Your task to perform on an android device: Clear the cart on amazon. Search for duracell triple a on amazon, select the first entry, and add it to the cart. Image 0: 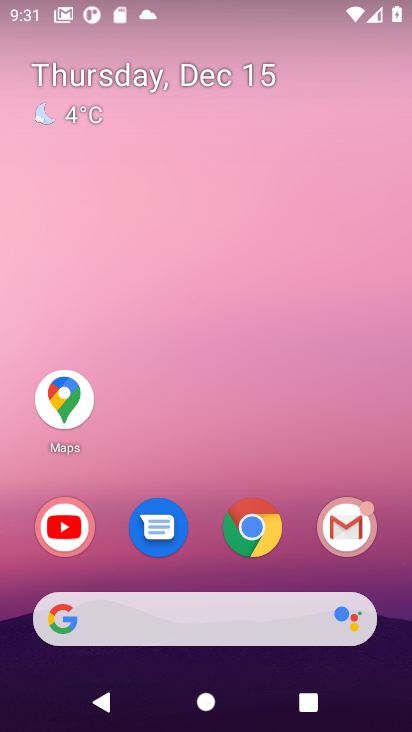
Step 0: click (257, 536)
Your task to perform on an android device: Clear the cart on amazon. Search for duracell triple a on amazon, select the first entry, and add it to the cart. Image 1: 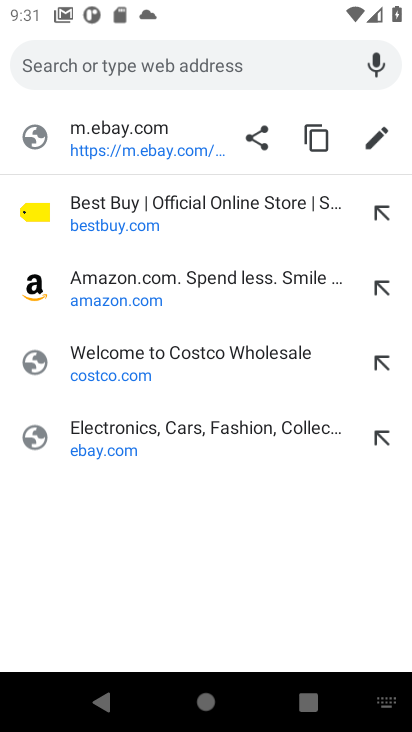
Step 1: click (173, 266)
Your task to perform on an android device: Clear the cart on amazon. Search for duracell triple a on amazon, select the first entry, and add it to the cart. Image 2: 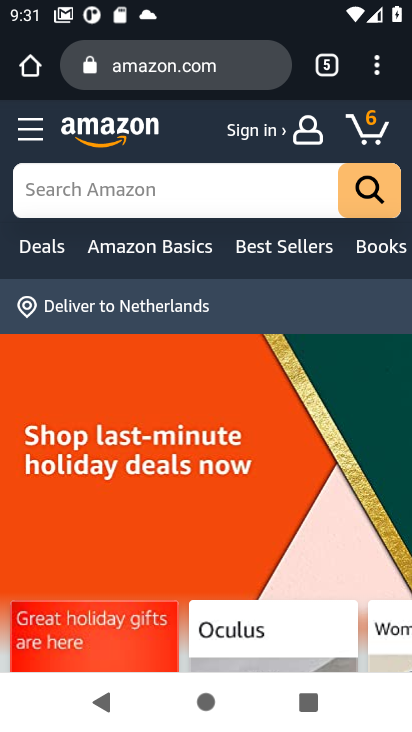
Step 2: click (173, 217)
Your task to perform on an android device: Clear the cart on amazon. Search for duracell triple a on amazon, select the first entry, and add it to the cart. Image 3: 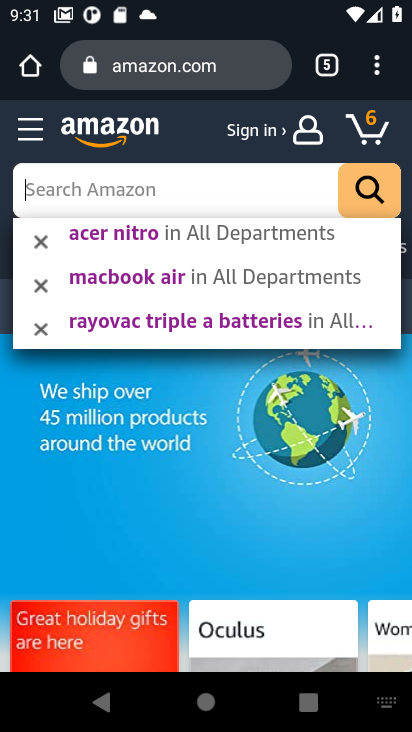
Step 3: type "duracell triple a"
Your task to perform on an android device: Clear the cart on amazon. Search for duracell triple a on amazon, select the first entry, and add it to the cart. Image 4: 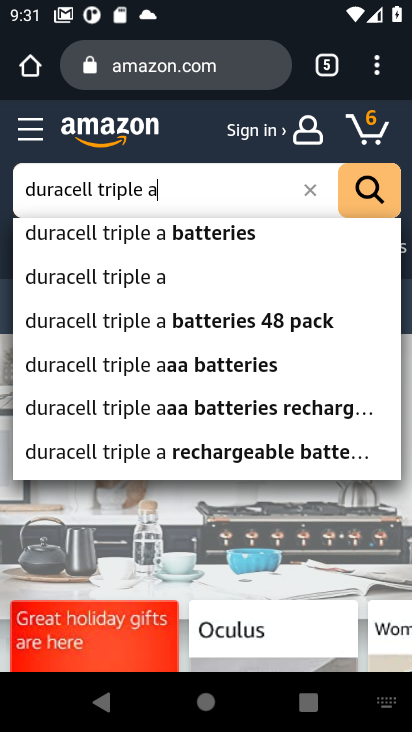
Step 4: click (378, 209)
Your task to perform on an android device: Clear the cart on amazon. Search for duracell triple a on amazon, select the first entry, and add it to the cart. Image 5: 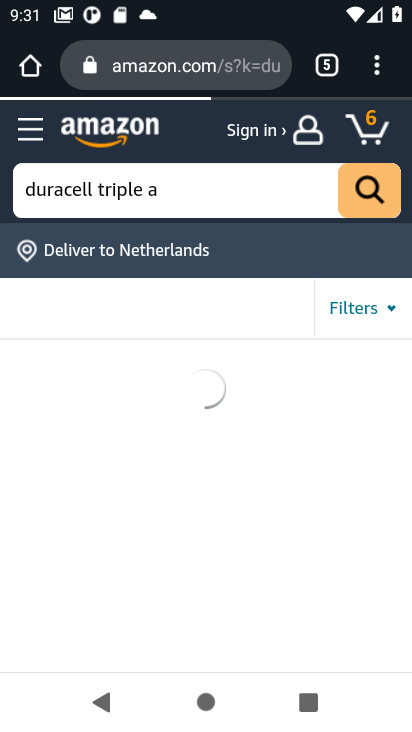
Step 5: click (236, 246)
Your task to perform on an android device: Clear the cart on amazon. Search for duracell triple a on amazon, select the first entry, and add it to the cart. Image 6: 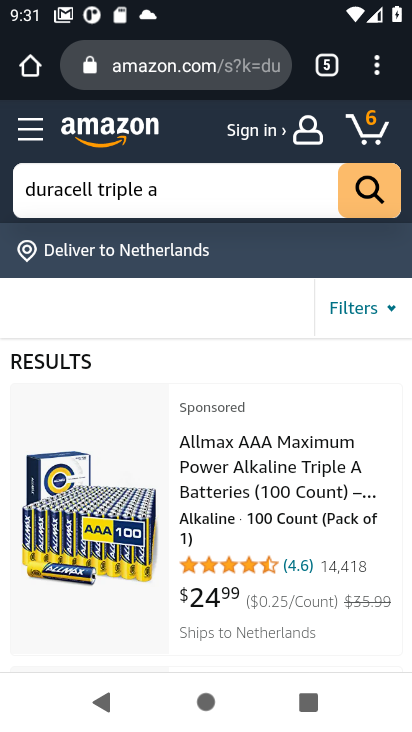
Step 6: click (218, 531)
Your task to perform on an android device: Clear the cart on amazon. Search for duracell triple a on amazon, select the first entry, and add it to the cart. Image 7: 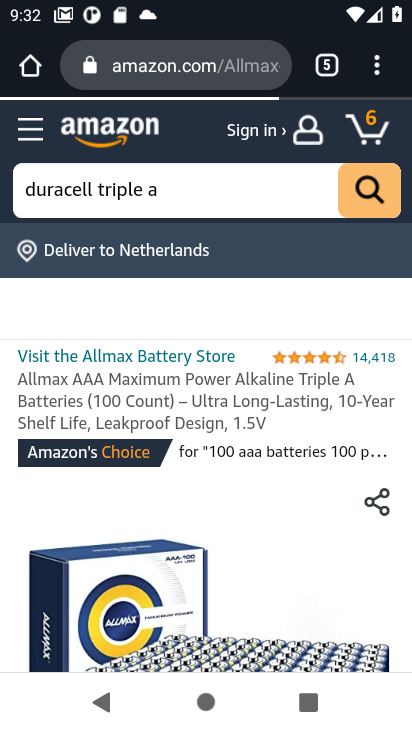
Step 7: drag from (242, 608) to (251, 53)
Your task to perform on an android device: Clear the cart on amazon. Search for duracell triple a on amazon, select the first entry, and add it to the cart. Image 8: 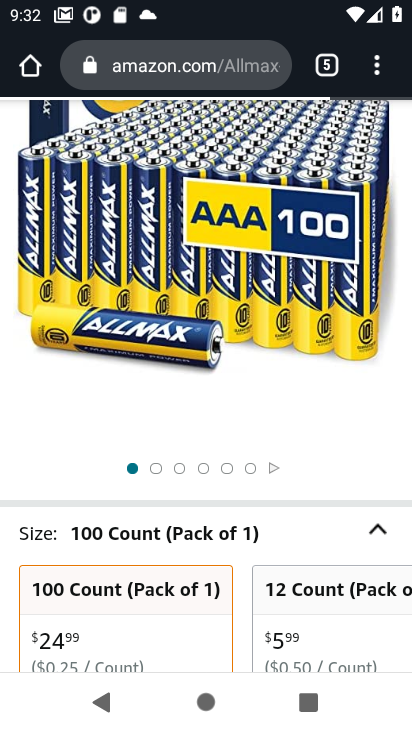
Step 8: drag from (279, 513) to (262, 79)
Your task to perform on an android device: Clear the cart on amazon. Search for duracell triple a on amazon, select the first entry, and add it to the cart. Image 9: 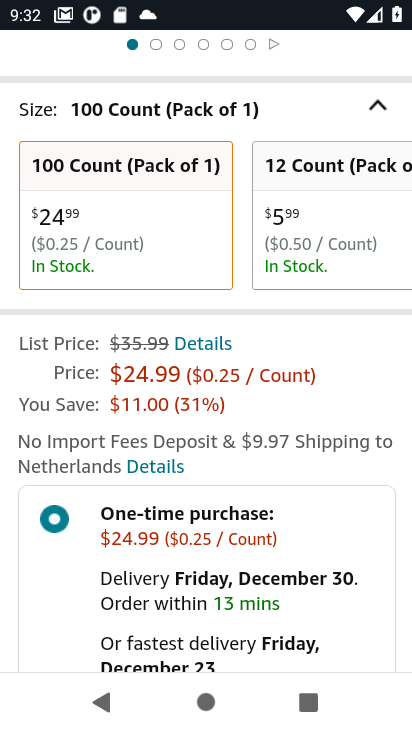
Step 9: drag from (254, 584) to (243, 86)
Your task to perform on an android device: Clear the cart on amazon. Search for duracell triple a on amazon, select the first entry, and add it to the cart. Image 10: 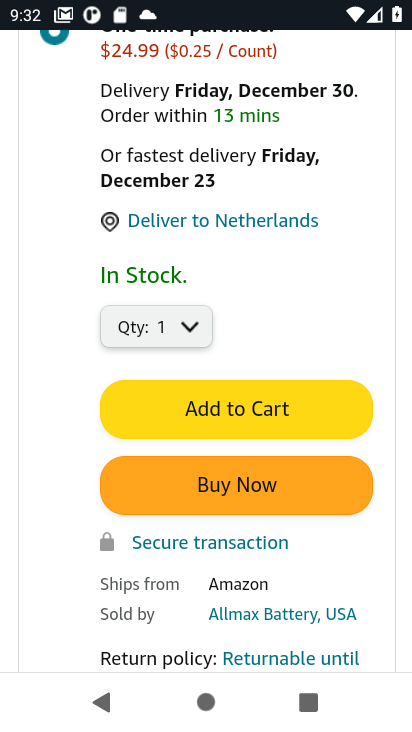
Step 10: click (278, 397)
Your task to perform on an android device: Clear the cart on amazon. Search for duracell triple a on amazon, select the first entry, and add it to the cart. Image 11: 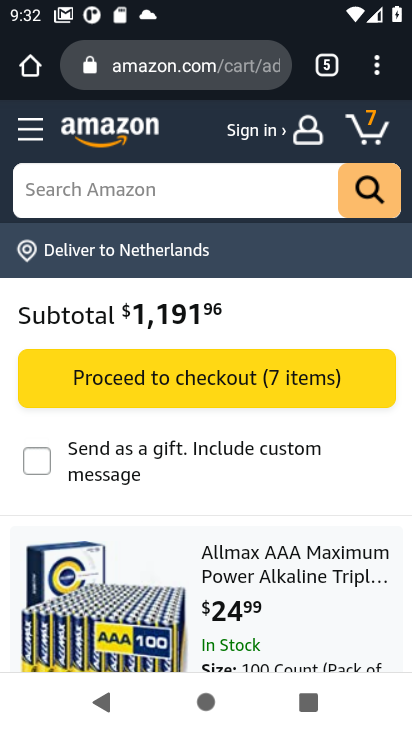
Step 11: task complete